Your task to perform on an android device: What's the weather going to be tomorrow? Image 0: 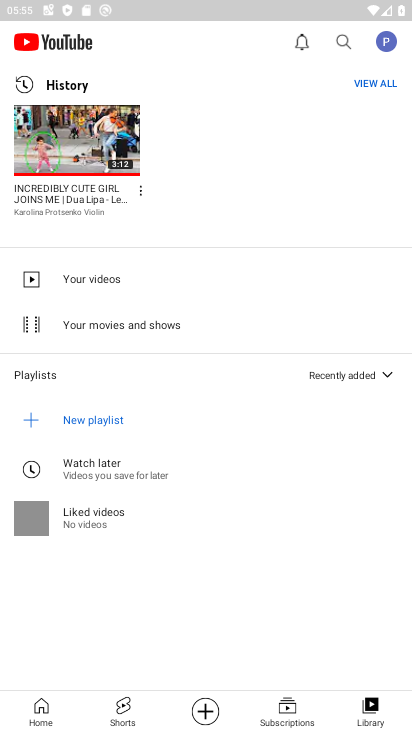
Step 0: drag from (237, 625) to (268, 243)
Your task to perform on an android device: What's the weather going to be tomorrow? Image 1: 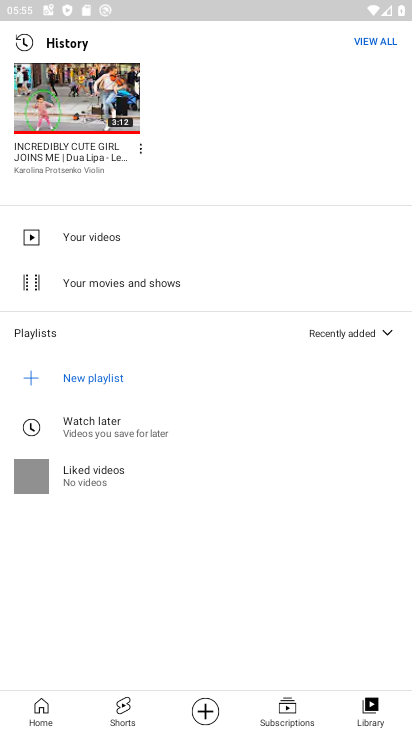
Step 1: press home button
Your task to perform on an android device: What's the weather going to be tomorrow? Image 2: 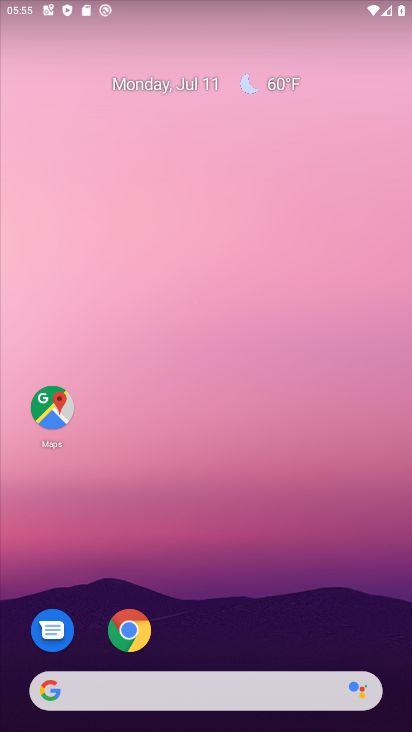
Step 2: click (191, 689)
Your task to perform on an android device: What's the weather going to be tomorrow? Image 3: 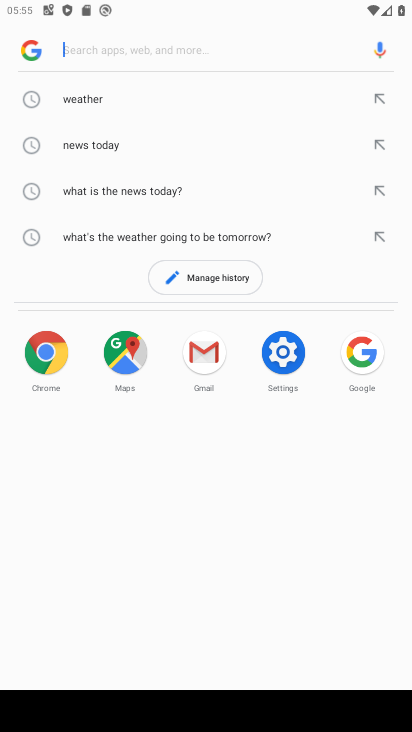
Step 3: click (84, 94)
Your task to perform on an android device: What's the weather going to be tomorrow? Image 4: 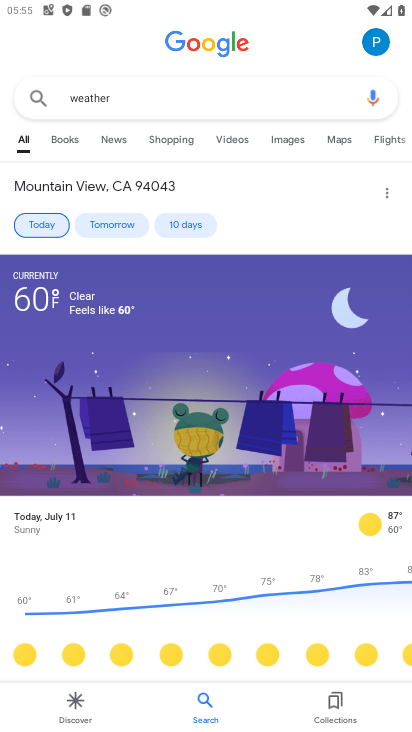
Step 4: click (96, 217)
Your task to perform on an android device: What's the weather going to be tomorrow? Image 5: 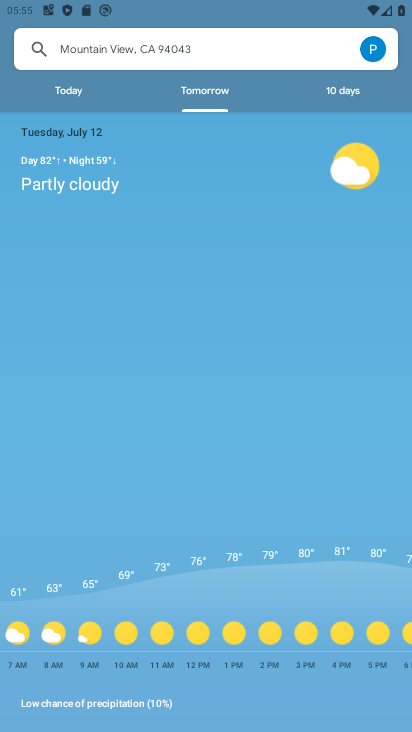
Step 5: task complete